Your task to perform on an android device: turn on the 12-hour format for clock Image 0: 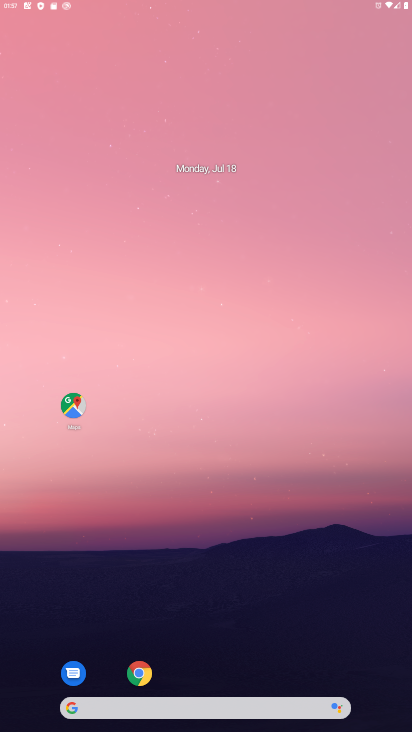
Step 0: drag from (204, 683) to (234, 247)
Your task to perform on an android device: turn on the 12-hour format for clock Image 1: 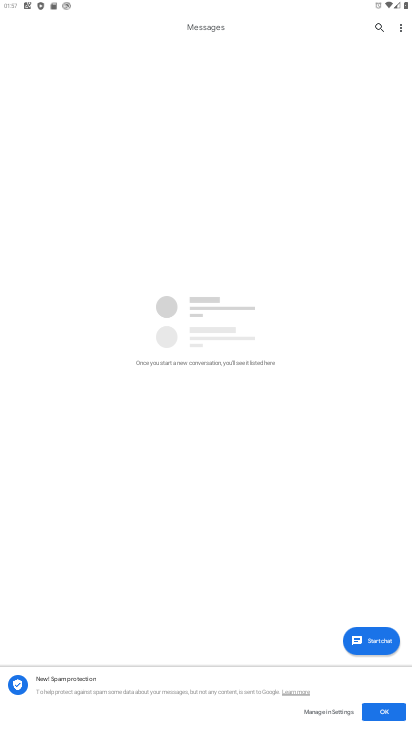
Step 1: press home button
Your task to perform on an android device: turn on the 12-hour format for clock Image 2: 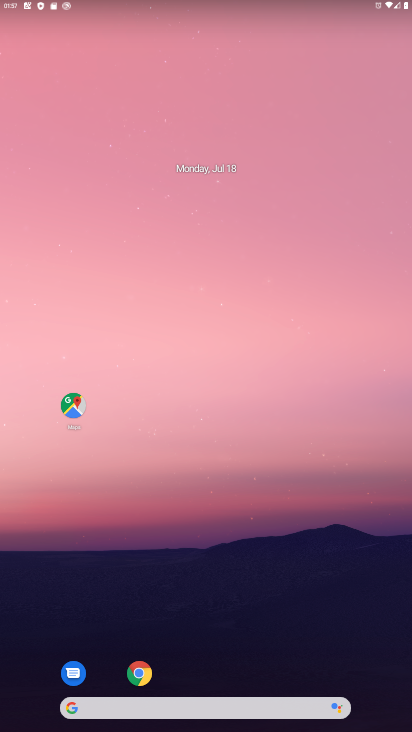
Step 2: drag from (230, 676) to (237, 35)
Your task to perform on an android device: turn on the 12-hour format for clock Image 3: 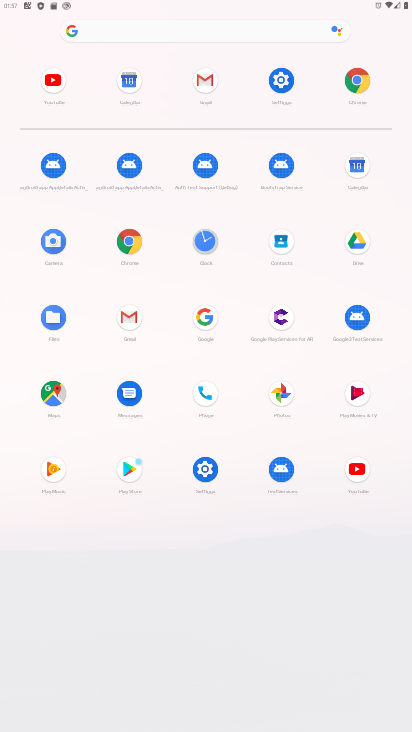
Step 3: click (208, 228)
Your task to perform on an android device: turn on the 12-hour format for clock Image 4: 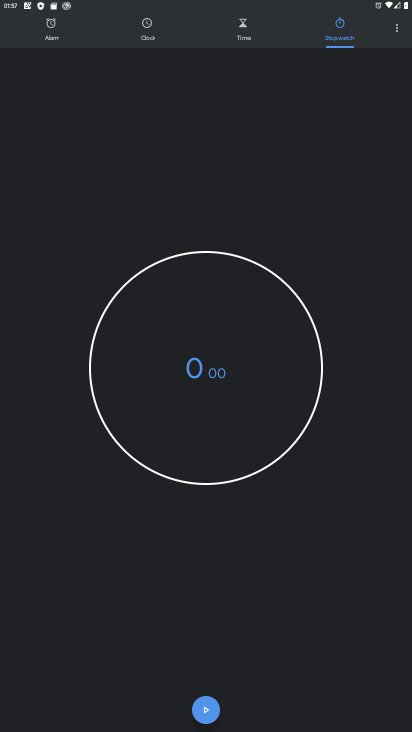
Step 4: click (405, 26)
Your task to perform on an android device: turn on the 12-hour format for clock Image 5: 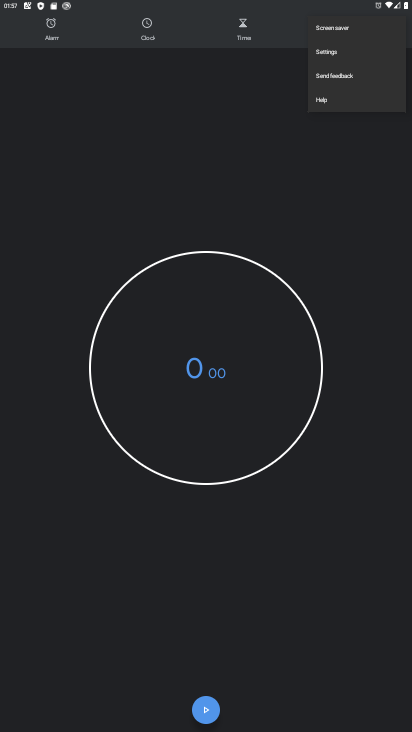
Step 5: click (330, 54)
Your task to perform on an android device: turn on the 12-hour format for clock Image 6: 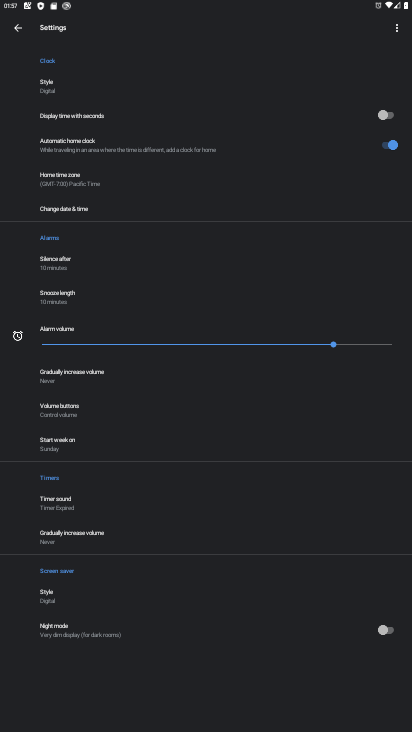
Step 6: click (93, 215)
Your task to perform on an android device: turn on the 12-hour format for clock Image 7: 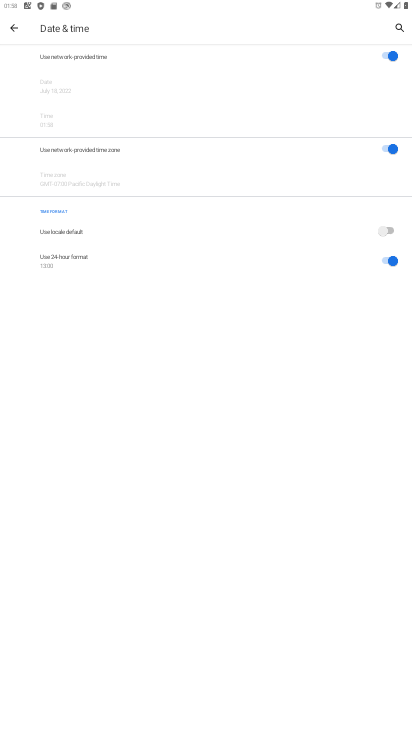
Step 7: click (385, 257)
Your task to perform on an android device: turn on the 12-hour format for clock Image 8: 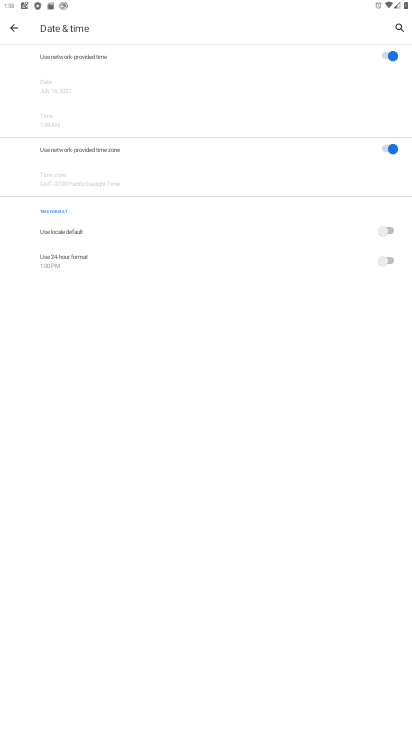
Step 8: task complete